Your task to perform on an android device: check storage Image 0: 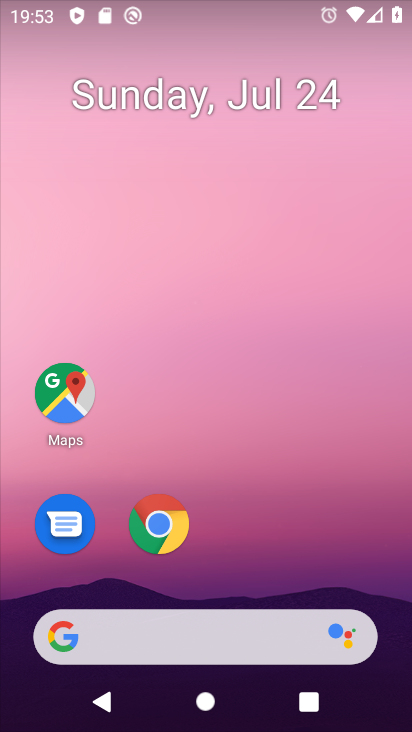
Step 0: drag from (278, 583) to (325, 0)
Your task to perform on an android device: check storage Image 1: 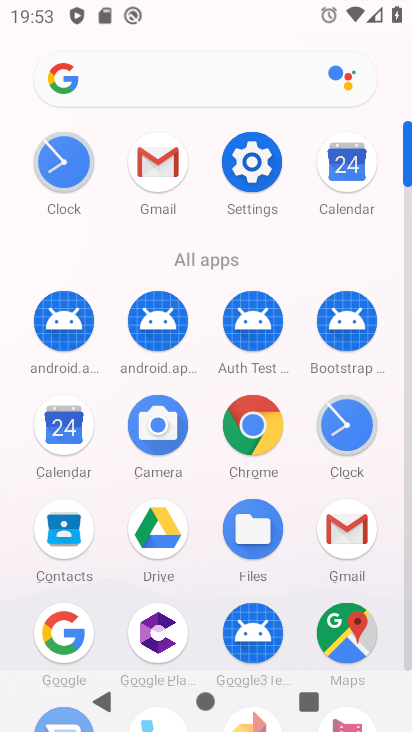
Step 1: click (247, 161)
Your task to perform on an android device: check storage Image 2: 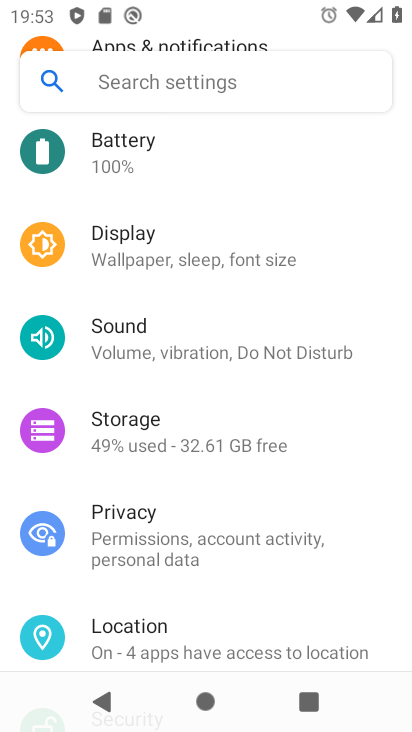
Step 2: click (167, 429)
Your task to perform on an android device: check storage Image 3: 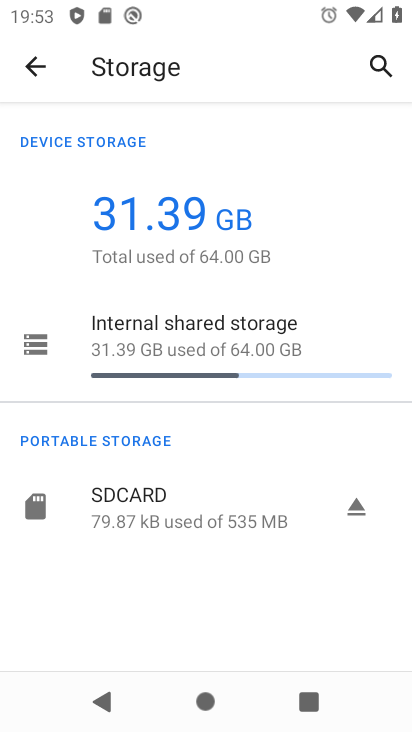
Step 3: task complete